Your task to perform on an android device: Go to battery settings Image 0: 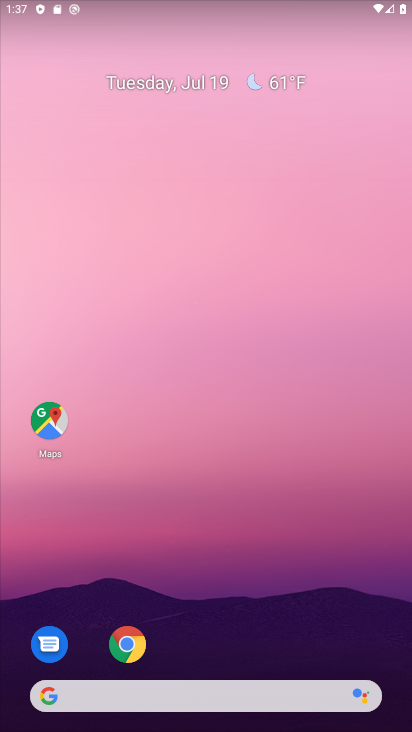
Step 0: drag from (231, 691) to (388, 529)
Your task to perform on an android device: Go to battery settings Image 1: 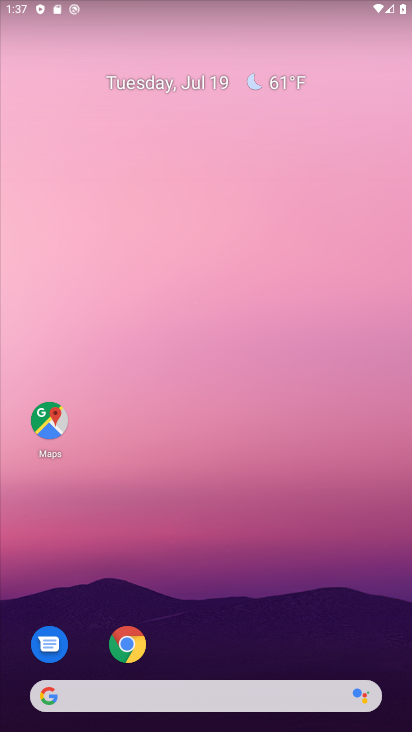
Step 1: drag from (224, 682) to (228, 119)
Your task to perform on an android device: Go to battery settings Image 2: 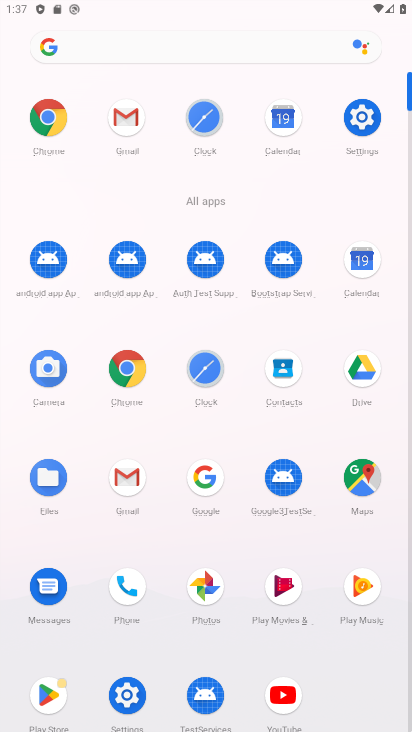
Step 2: click (360, 128)
Your task to perform on an android device: Go to battery settings Image 3: 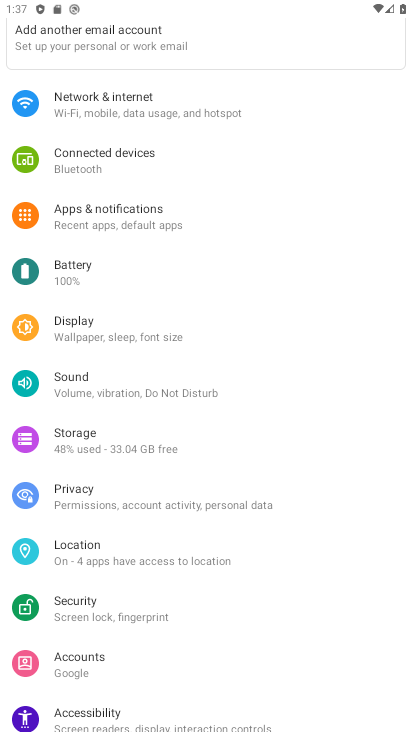
Step 3: click (71, 254)
Your task to perform on an android device: Go to battery settings Image 4: 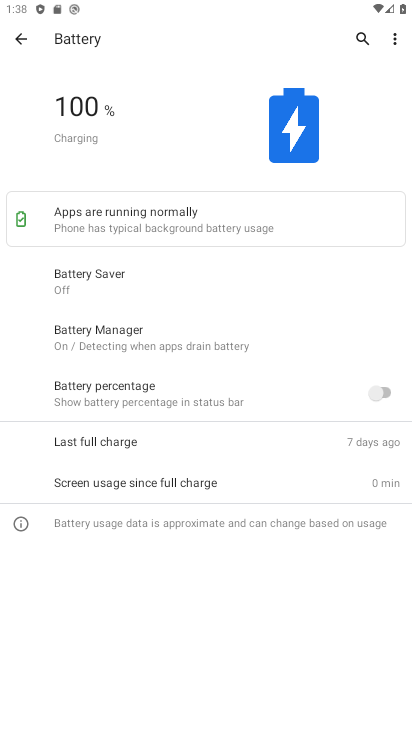
Step 4: task complete